Your task to perform on an android device: check storage Image 0: 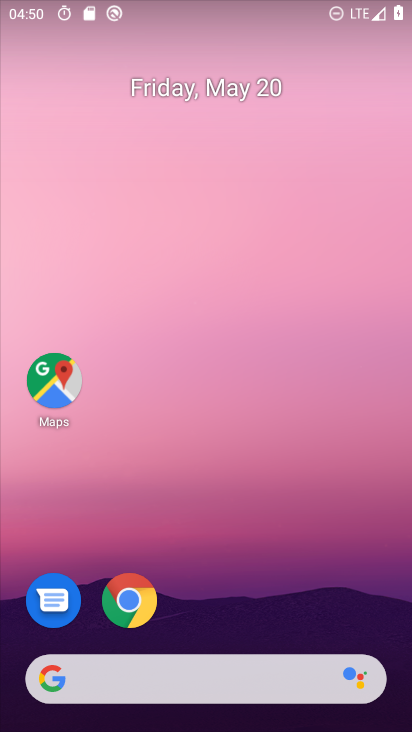
Step 0: drag from (269, 607) to (325, 46)
Your task to perform on an android device: check storage Image 1: 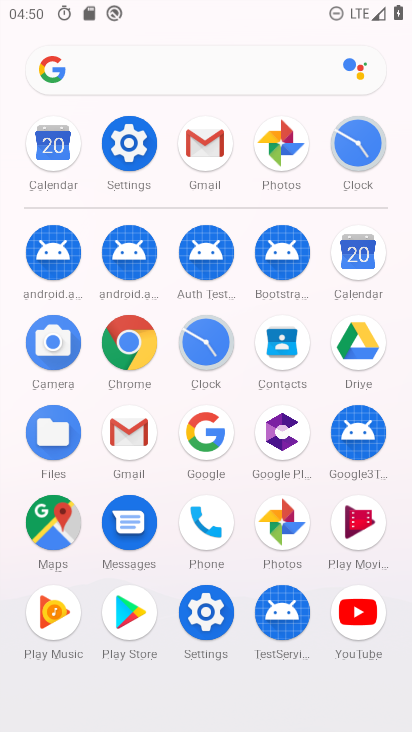
Step 1: click (129, 149)
Your task to perform on an android device: check storage Image 2: 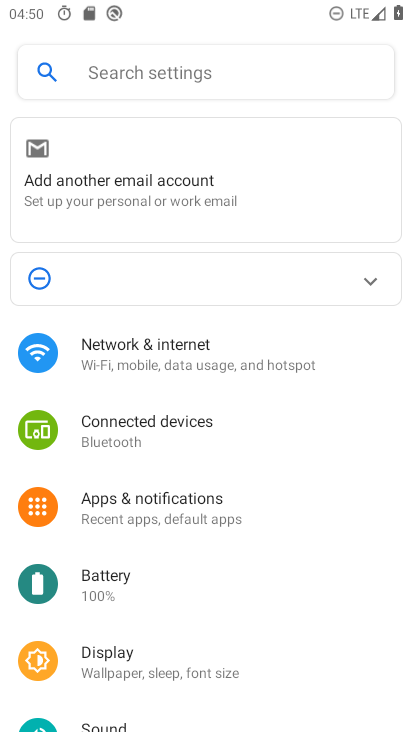
Step 2: drag from (138, 701) to (220, 201)
Your task to perform on an android device: check storage Image 3: 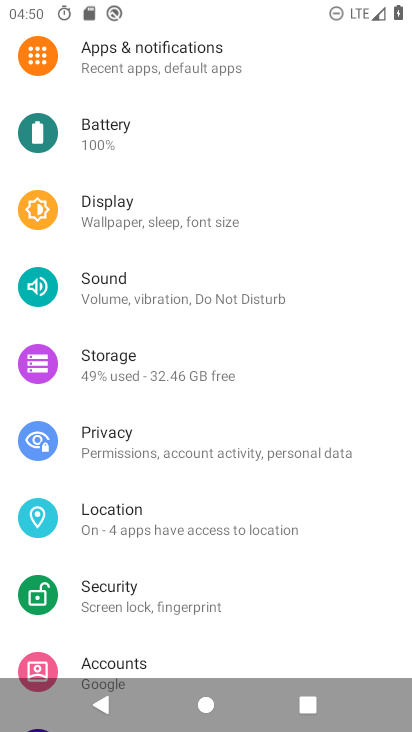
Step 3: click (114, 368)
Your task to perform on an android device: check storage Image 4: 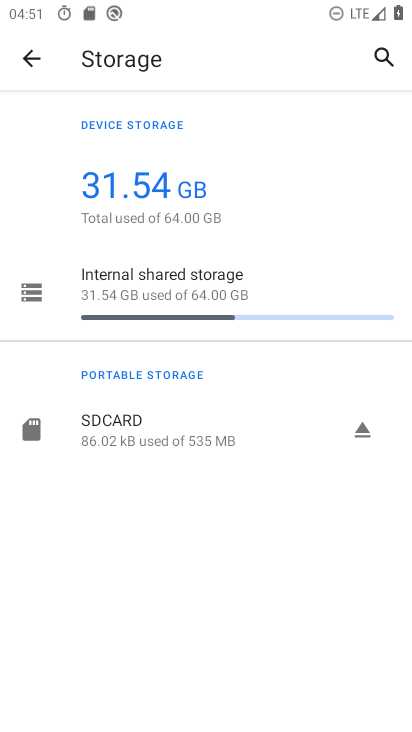
Step 4: task complete